Your task to perform on an android device: What's the weather going to be tomorrow? Image 0: 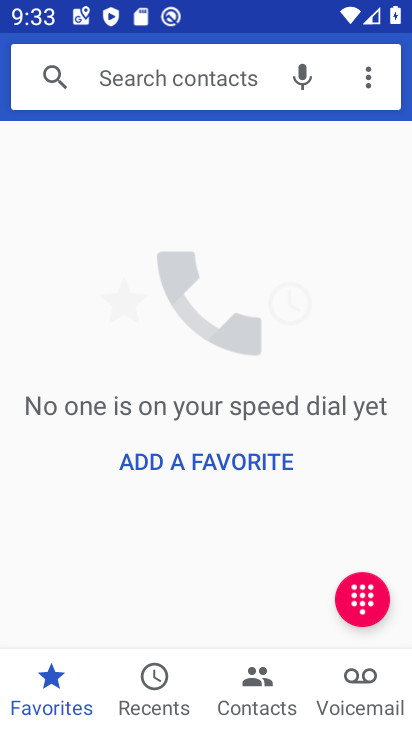
Step 0: press home button
Your task to perform on an android device: What's the weather going to be tomorrow? Image 1: 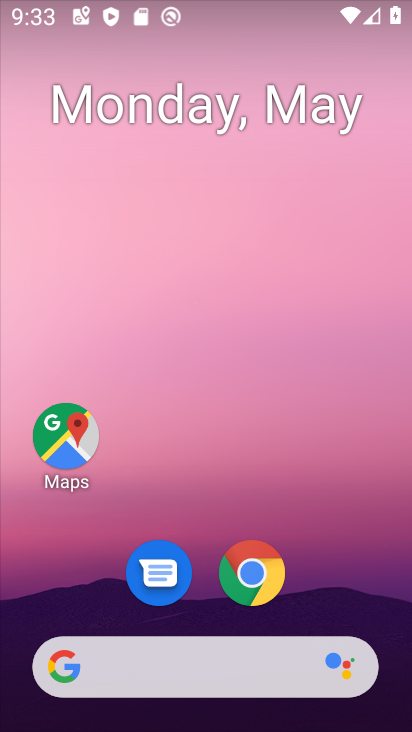
Step 1: click (214, 665)
Your task to perform on an android device: What's the weather going to be tomorrow? Image 2: 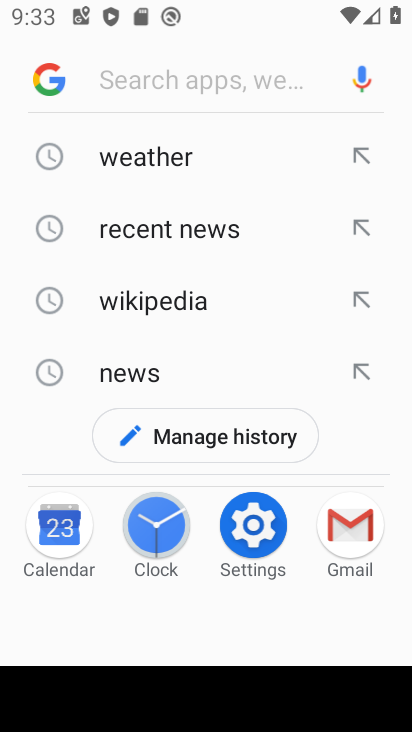
Step 2: click (161, 149)
Your task to perform on an android device: What's the weather going to be tomorrow? Image 3: 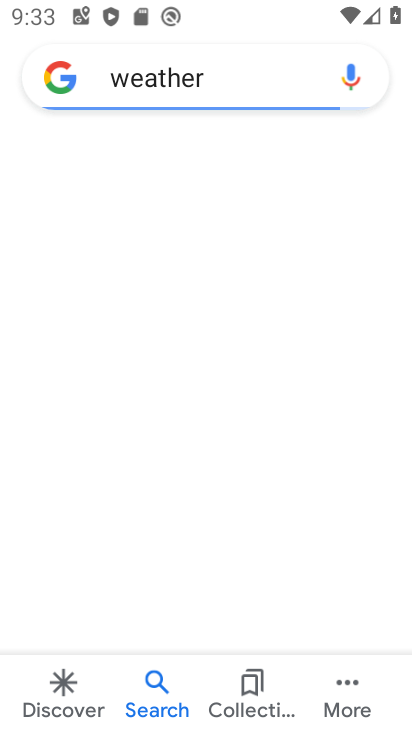
Step 3: task complete